Your task to perform on an android device: Open Google Image 0: 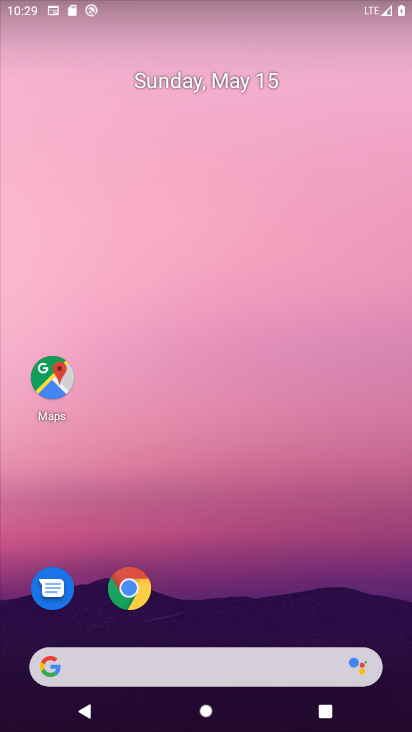
Step 0: click (156, 663)
Your task to perform on an android device: Open Google Image 1: 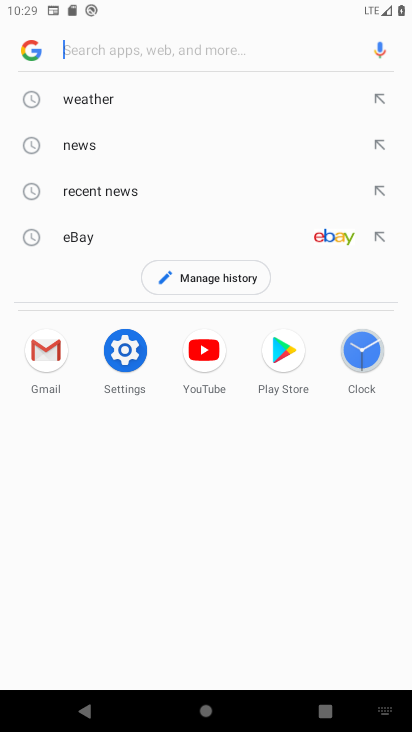
Step 1: click (33, 45)
Your task to perform on an android device: Open Google Image 2: 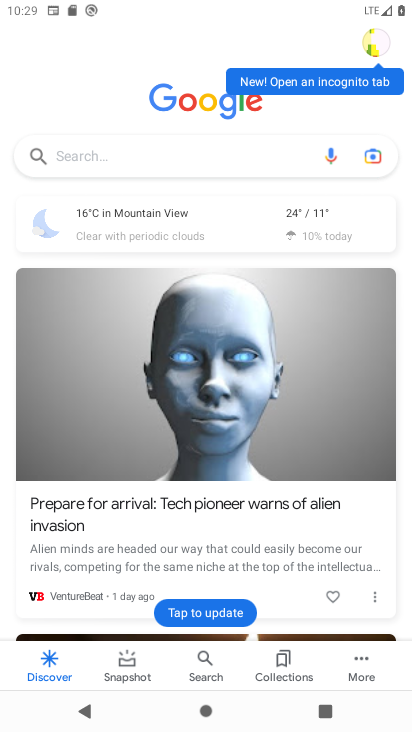
Step 2: task complete